Your task to perform on an android device: manage bookmarks in the chrome app Image 0: 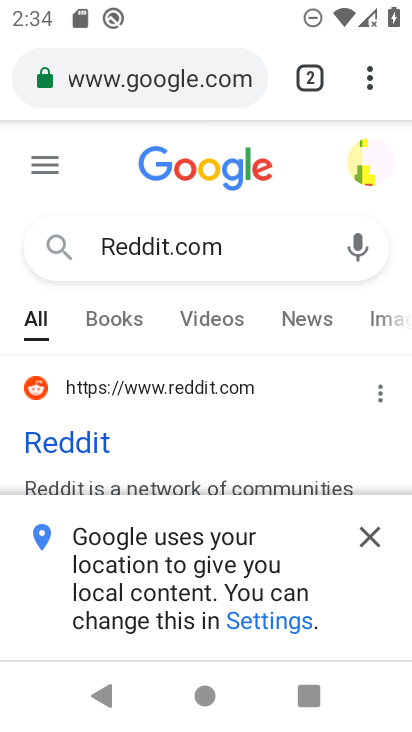
Step 0: press home button
Your task to perform on an android device: manage bookmarks in the chrome app Image 1: 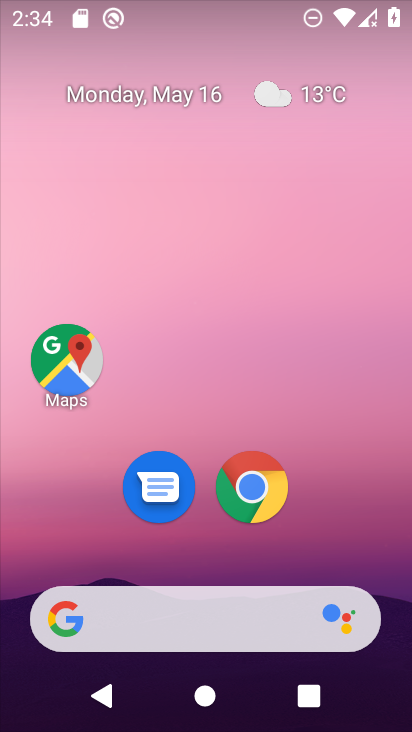
Step 1: click (270, 481)
Your task to perform on an android device: manage bookmarks in the chrome app Image 2: 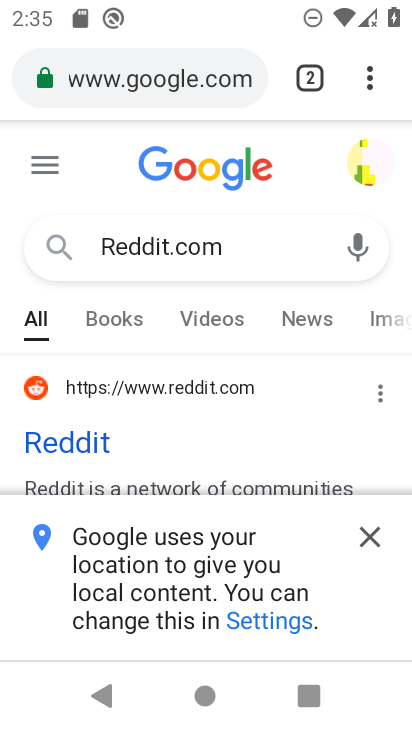
Step 2: click (370, 69)
Your task to perform on an android device: manage bookmarks in the chrome app Image 3: 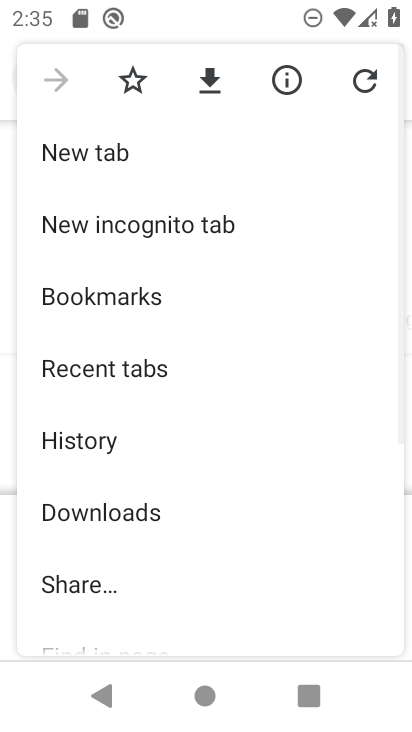
Step 3: drag from (221, 598) to (247, 323)
Your task to perform on an android device: manage bookmarks in the chrome app Image 4: 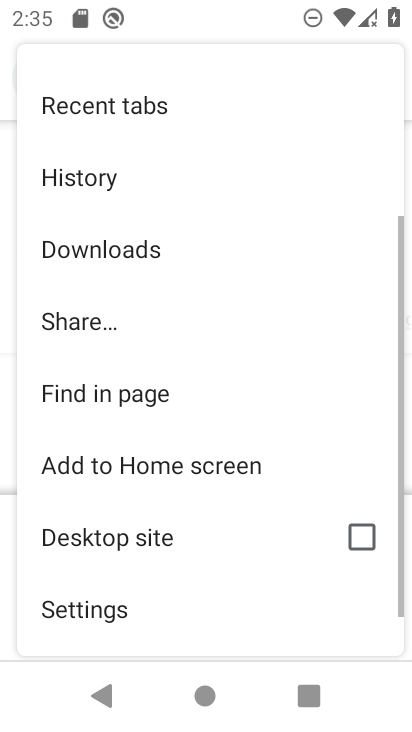
Step 4: drag from (246, 206) to (271, 397)
Your task to perform on an android device: manage bookmarks in the chrome app Image 5: 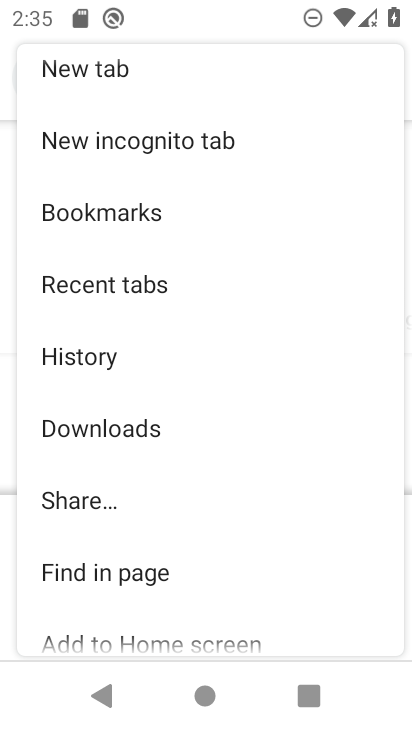
Step 5: click (99, 208)
Your task to perform on an android device: manage bookmarks in the chrome app Image 6: 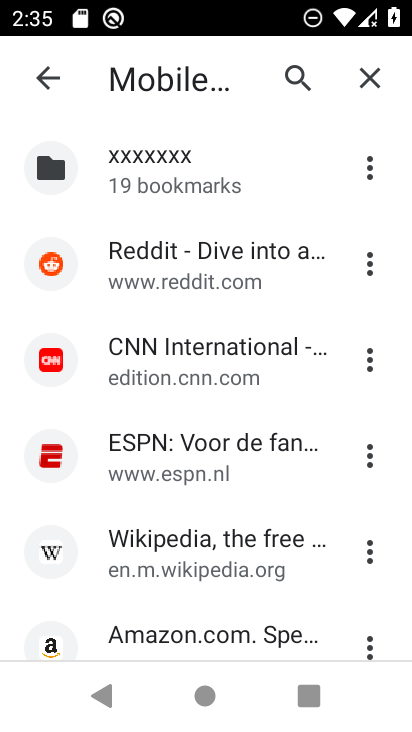
Step 6: click (369, 356)
Your task to perform on an android device: manage bookmarks in the chrome app Image 7: 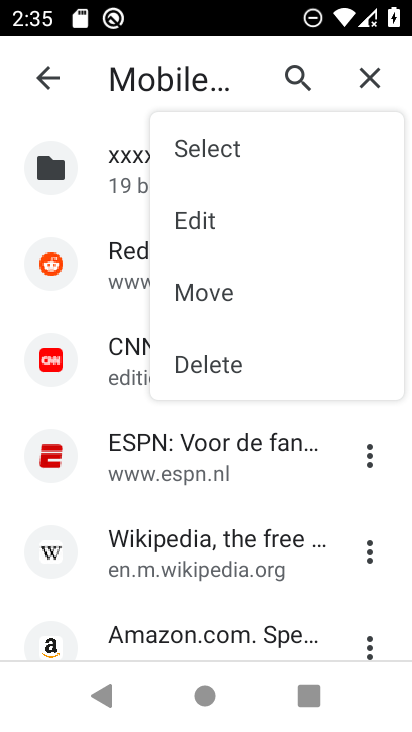
Step 7: click (227, 358)
Your task to perform on an android device: manage bookmarks in the chrome app Image 8: 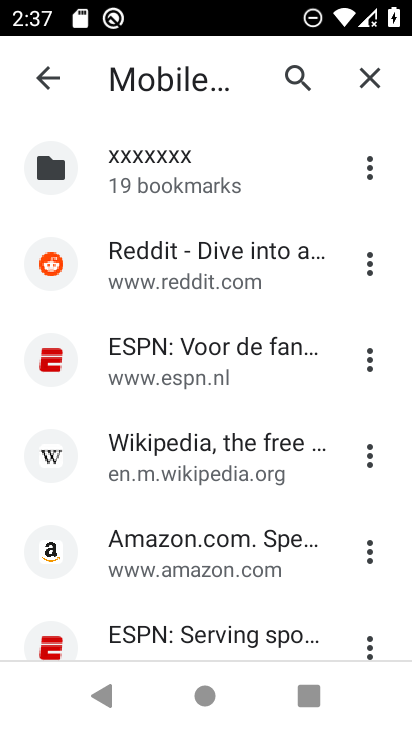
Step 8: task complete